Your task to perform on an android device: delete browsing data in the chrome app Image 0: 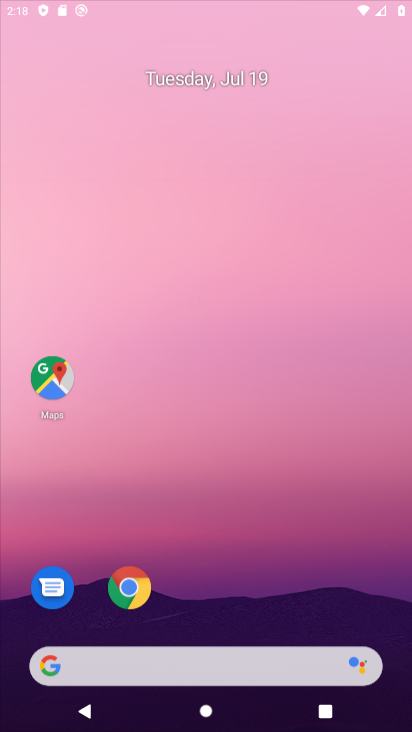
Step 0: press home button
Your task to perform on an android device: delete browsing data in the chrome app Image 1: 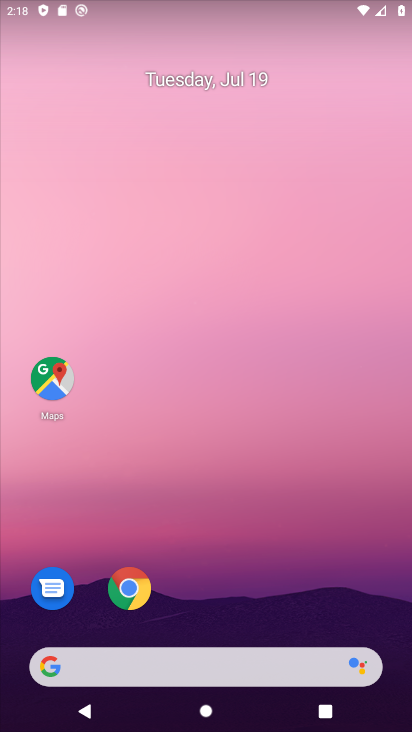
Step 1: drag from (220, 634) to (259, 39)
Your task to perform on an android device: delete browsing data in the chrome app Image 2: 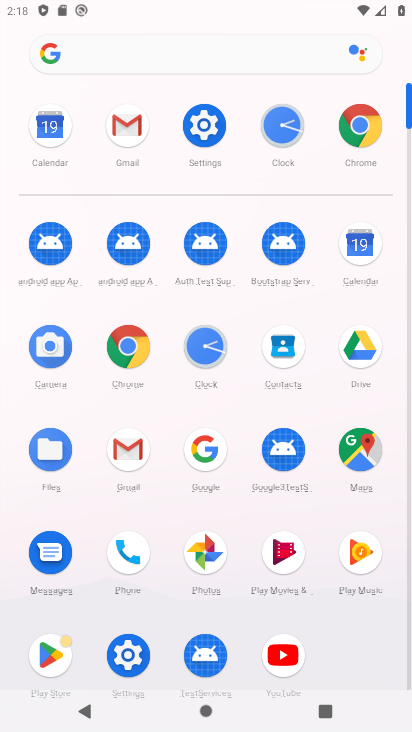
Step 2: click (363, 136)
Your task to perform on an android device: delete browsing data in the chrome app Image 3: 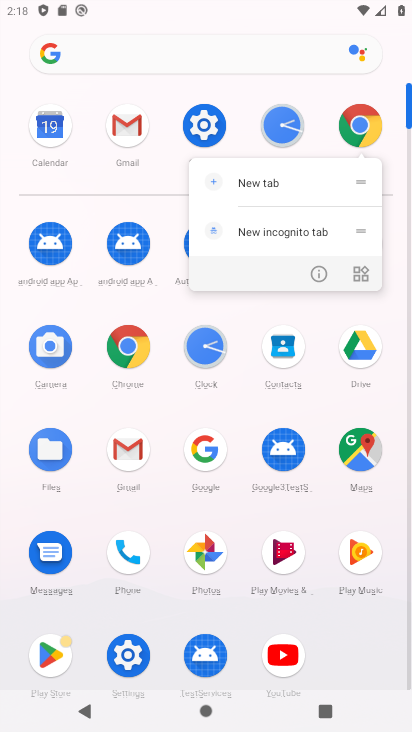
Step 3: click (356, 133)
Your task to perform on an android device: delete browsing data in the chrome app Image 4: 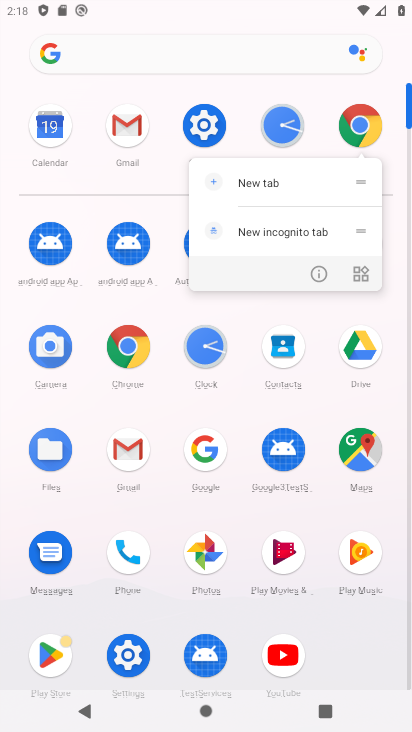
Step 4: click (356, 133)
Your task to perform on an android device: delete browsing data in the chrome app Image 5: 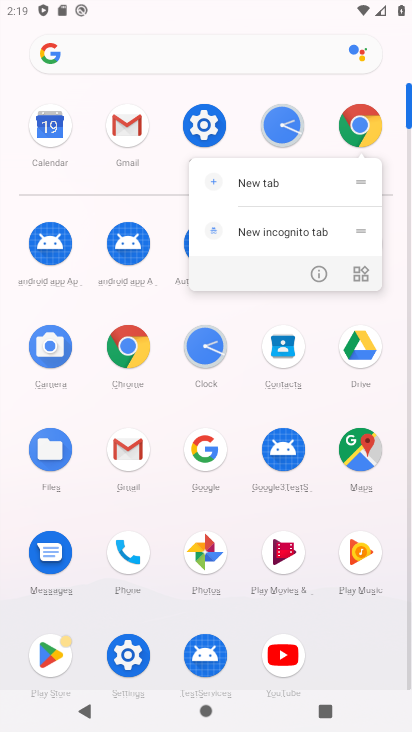
Step 5: click (359, 139)
Your task to perform on an android device: delete browsing data in the chrome app Image 6: 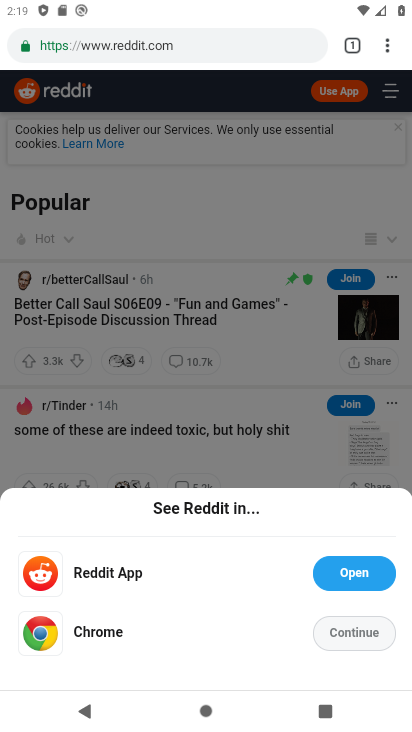
Step 6: drag from (386, 45) to (228, 515)
Your task to perform on an android device: delete browsing data in the chrome app Image 7: 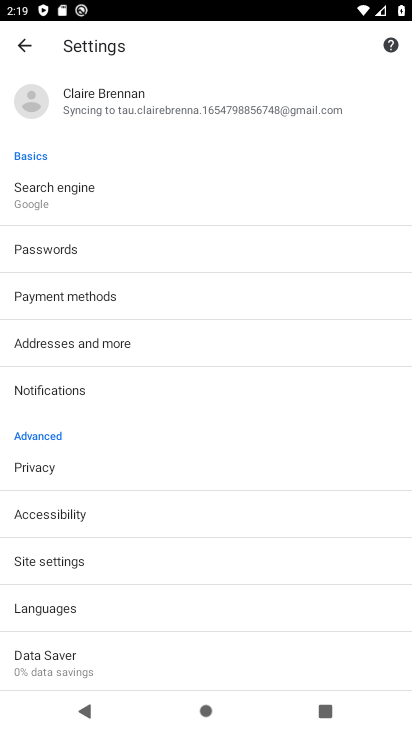
Step 7: click (38, 469)
Your task to perform on an android device: delete browsing data in the chrome app Image 8: 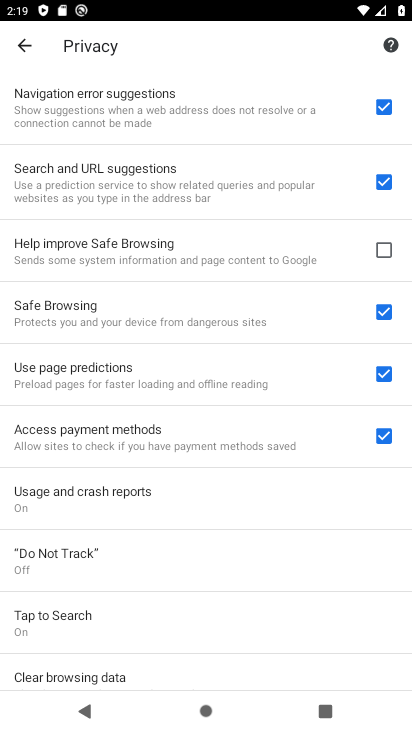
Step 8: drag from (265, 622) to (339, 125)
Your task to perform on an android device: delete browsing data in the chrome app Image 9: 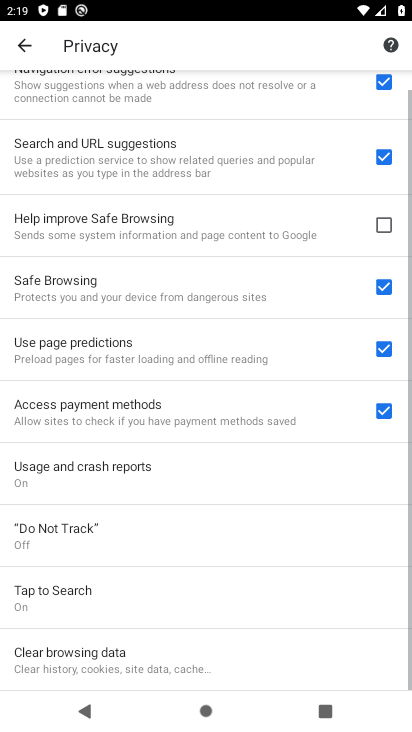
Step 9: click (74, 662)
Your task to perform on an android device: delete browsing data in the chrome app Image 10: 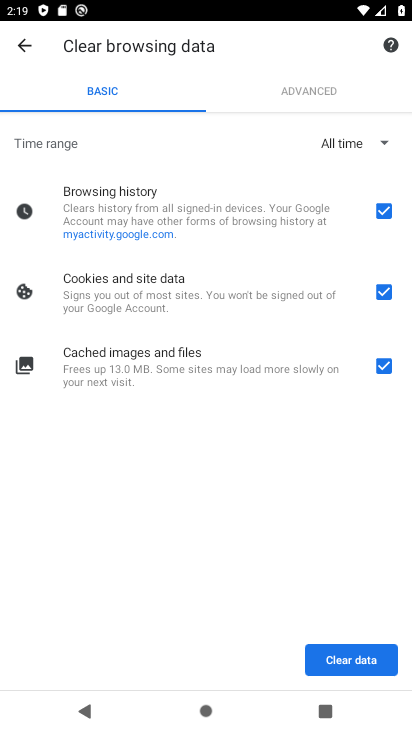
Step 10: click (363, 658)
Your task to perform on an android device: delete browsing data in the chrome app Image 11: 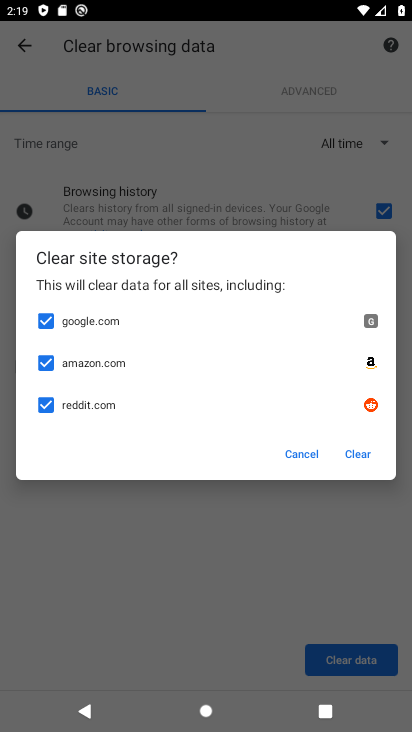
Step 11: click (352, 457)
Your task to perform on an android device: delete browsing data in the chrome app Image 12: 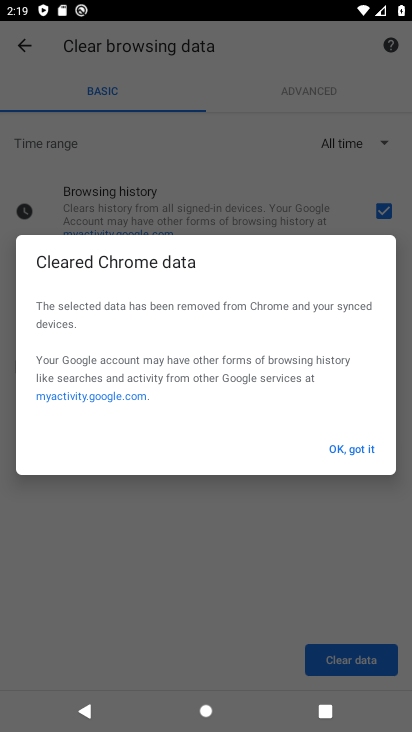
Step 12: click (362, 454)
Your task to perform on an android device: delete browsing data in the chrome app Image 13: 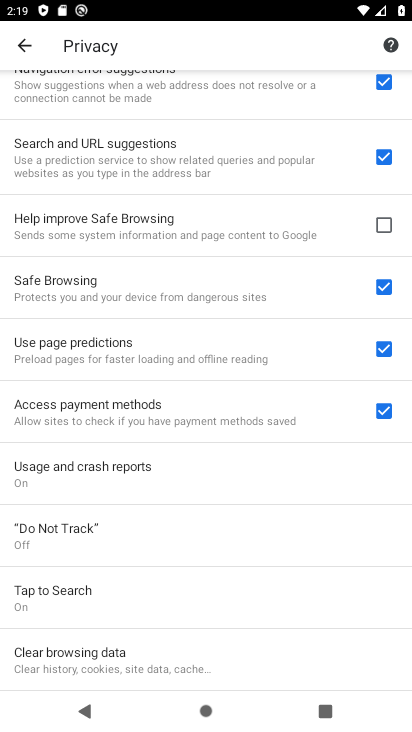
Step 13: task complete